Your task to perform on an android device: turn off improve location accuracy Image 0: 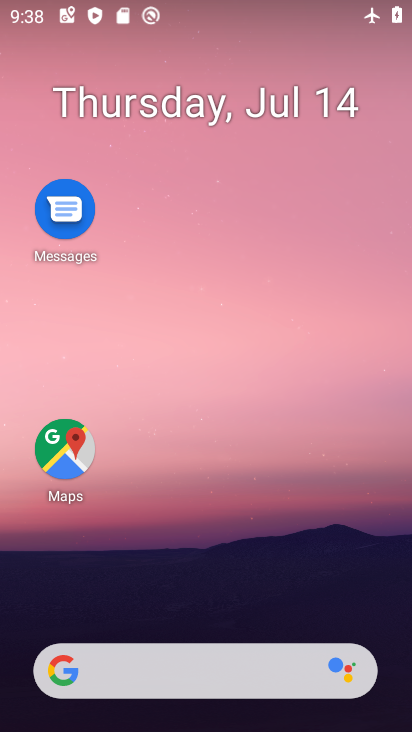
Step 0: drag from (210, 621) to (144, 0)
Your task to perform on an android device: turn off improve location accuracy Image 1: 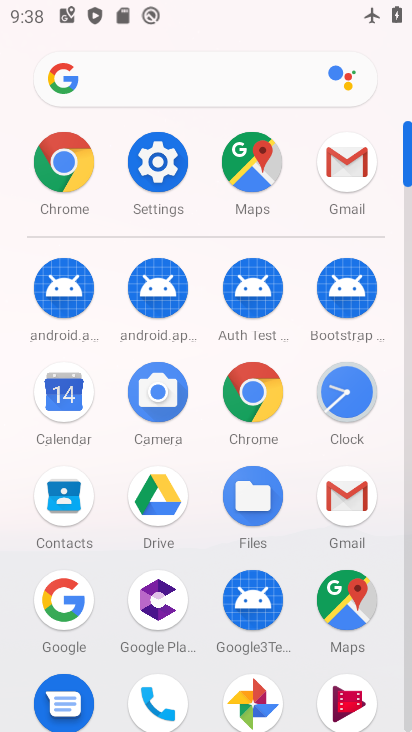
Step 1: click (152, 146)
Your task to perform on an android device: turn off improve location accuracy Image 2: 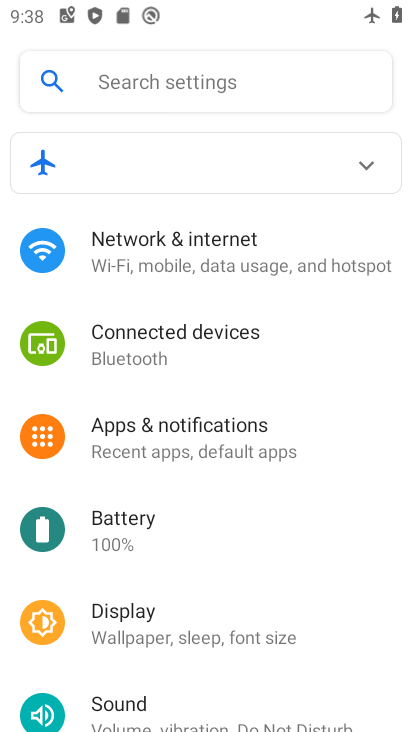
Step 2: drag from (264, 560) to (187, 231)
Your task to perform on an android device: turn off improve location accuracy Image 3: 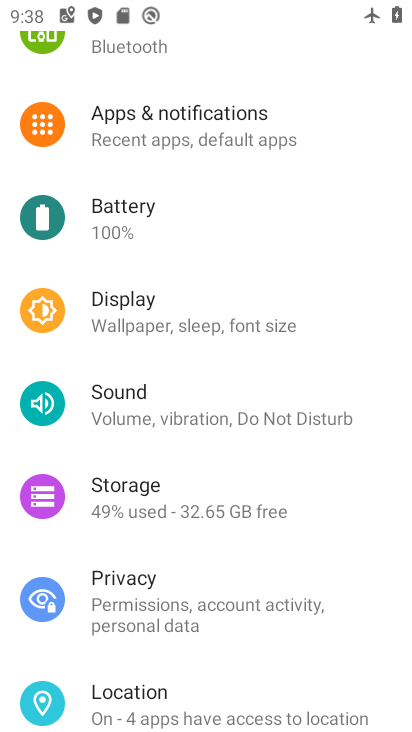
Step 3: click (150, 708)
Your task to perform on an android device: turn off improve location accuracy Image 4: 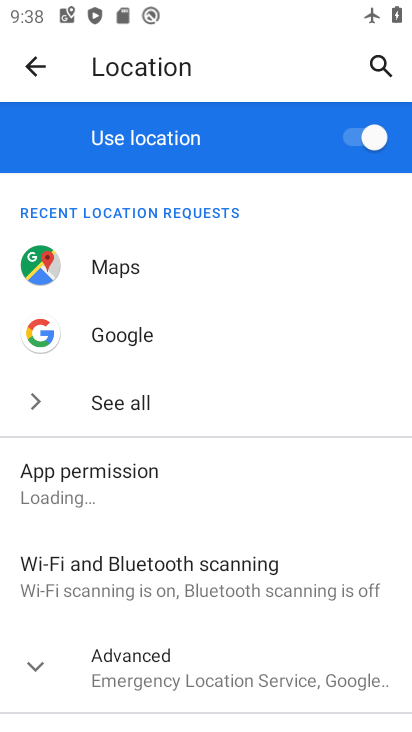
Step 4: click (135, 679)
Your task to perform on an android device: turn off improve location accuracy Image 5: 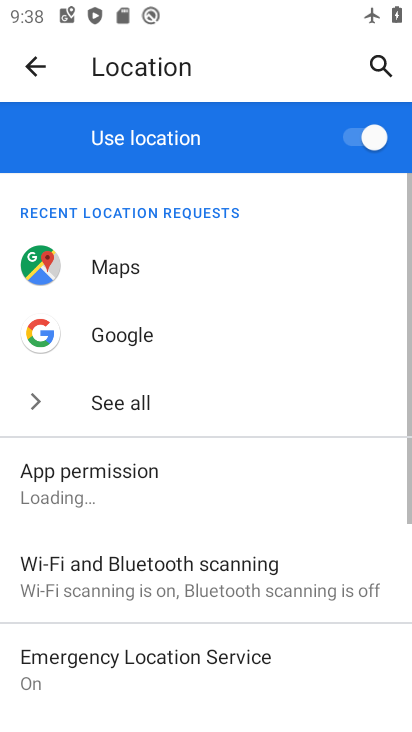
Step 5: drag from (135, 679) to (71, 270)
Your task to perform on an android device: turn off improve location accuracy Image 6: 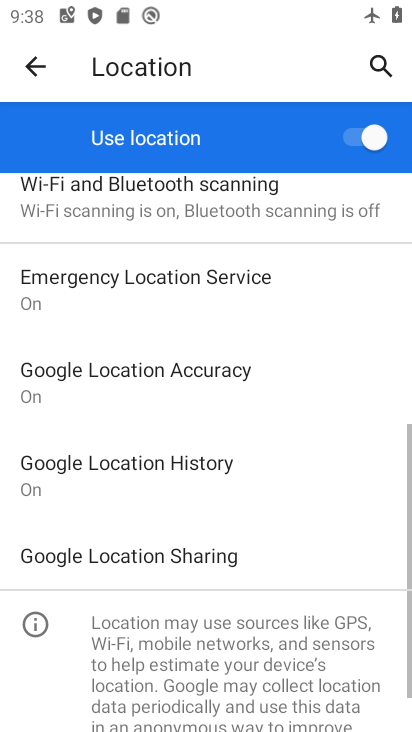
Step 6: click (157, 359)
Your task to perform on an android device: turn off improve location accuracy Image 7: 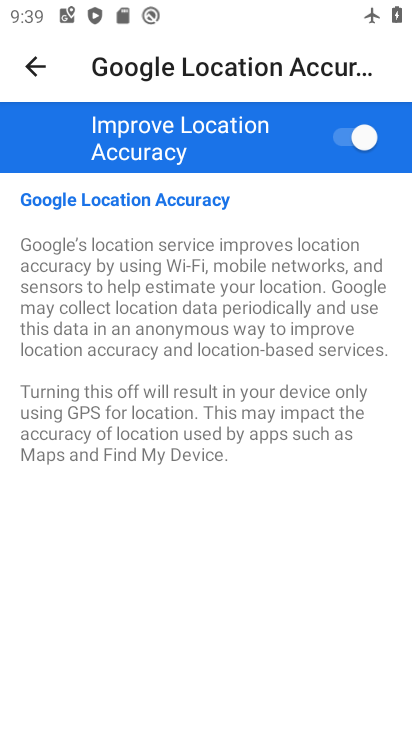
Step 7: click (347, 126)
Your task to perform on an android device: turn off improve location accuracy Image 8: 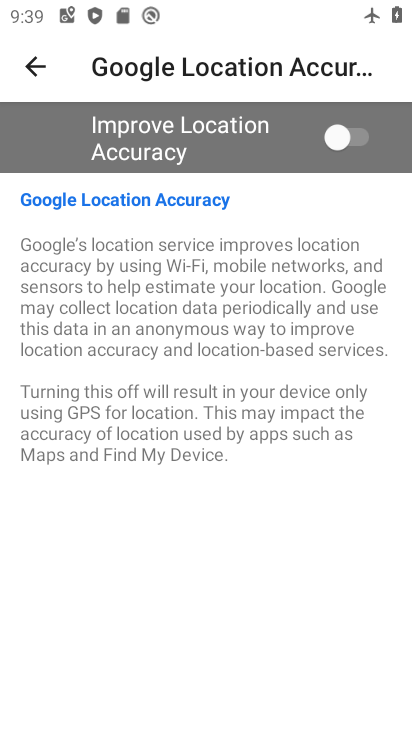
Step 8: task complete